Your task to perform on an android device: change notifications settings Image 0: 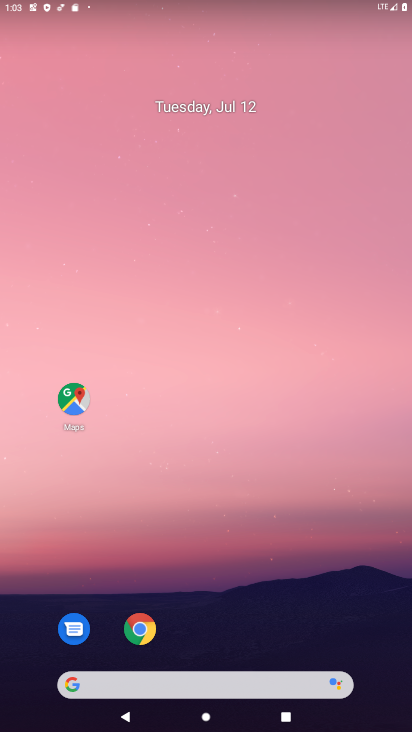
Step 0: drag from (272, 692) to (315, 54)
Your task to perform on an android device: change notifications settings Image 1: 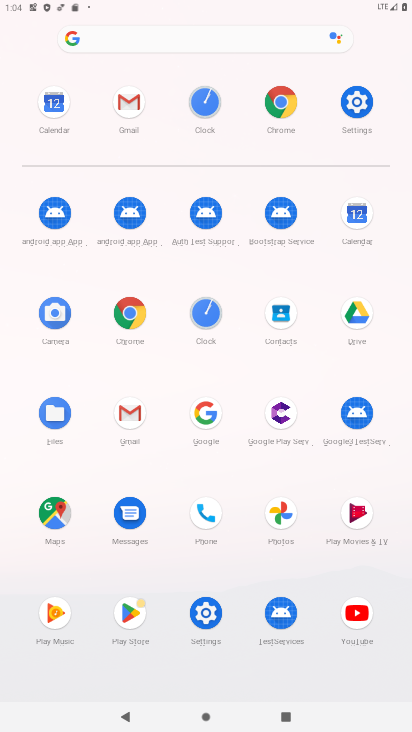
Step 1: click (372, 98)
Your task to perform on an android device: change notifications settings Image 2: 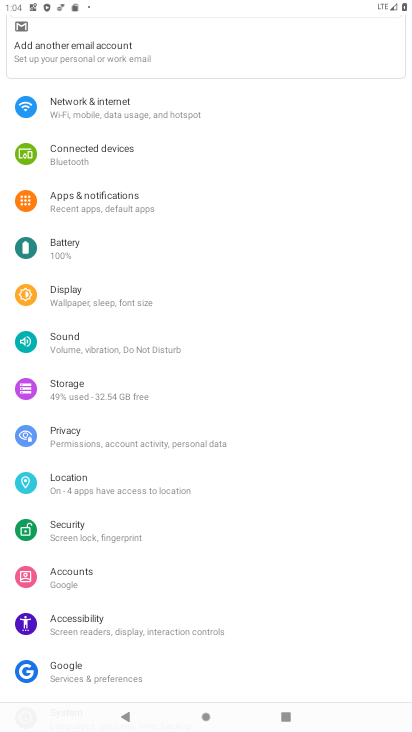
Step 2: click (65, 212)
Your task to perform on an android device: change notifications settings Image 3: 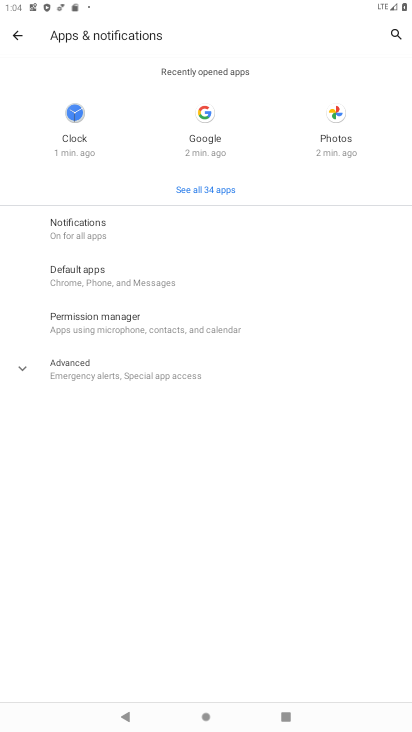
Step 3: click (94, 232)
Your task to perform on an android device: change notifications settings Image 4: 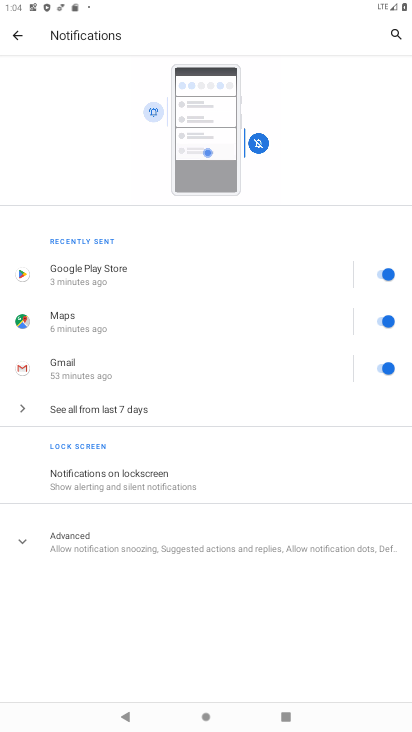
Step 4: click (391, 315)
Your task to perform on an android device: change notifications settings Image 5: 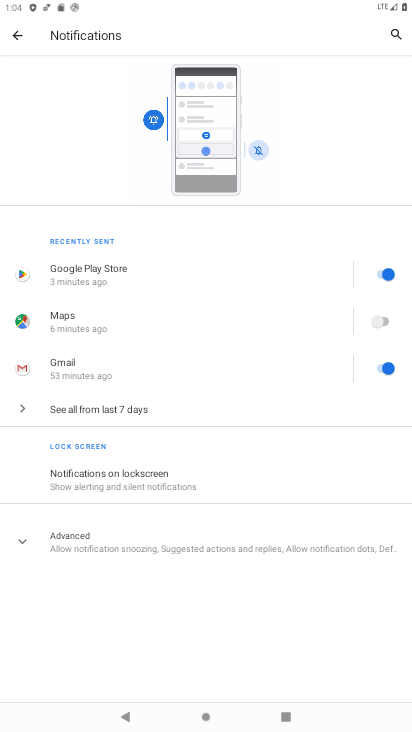
Step 5: task complete